Your task to perform on an android device: Show me recent news Image 0: 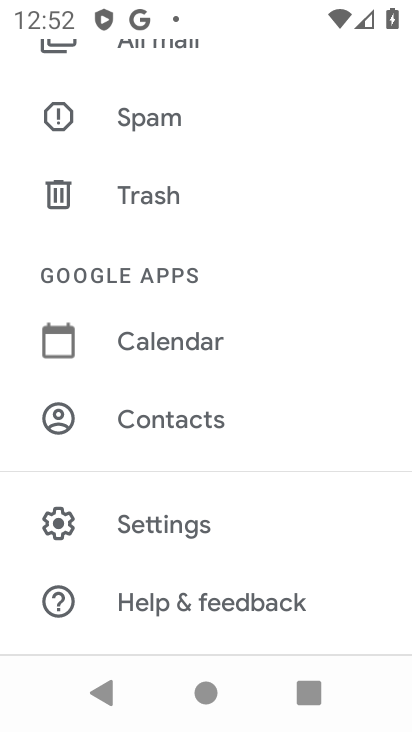
Step 0: press home button
Your task to perform on an android device: Show me recent news Image 1: 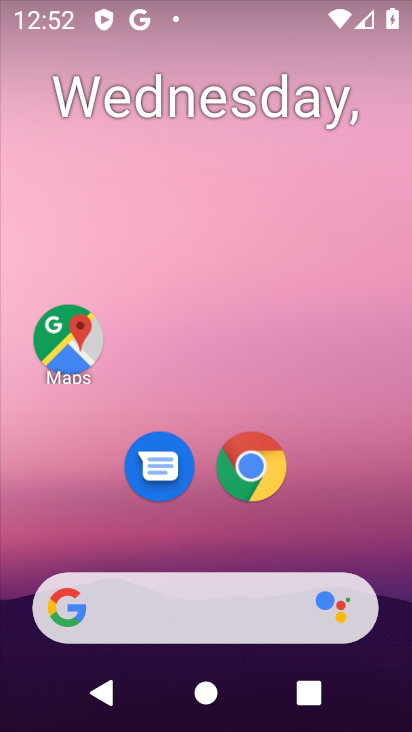
Step 1: click (179, 586)
Your task to perform on an android device: Show me recent news Image 2: 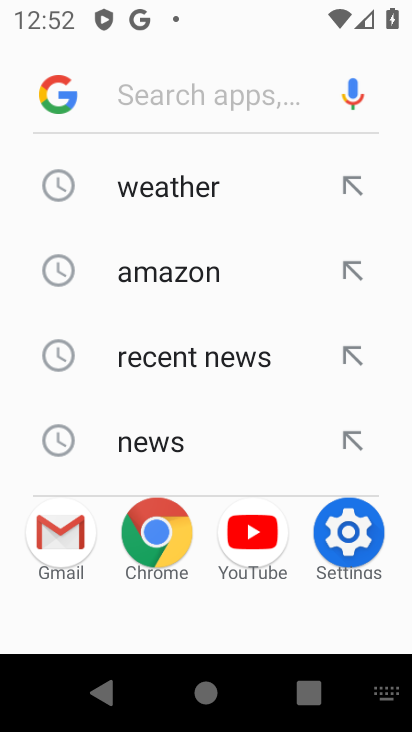
Step 2: click (277, 353)
Your task to perform on an android device: Show me recent news Image 3: 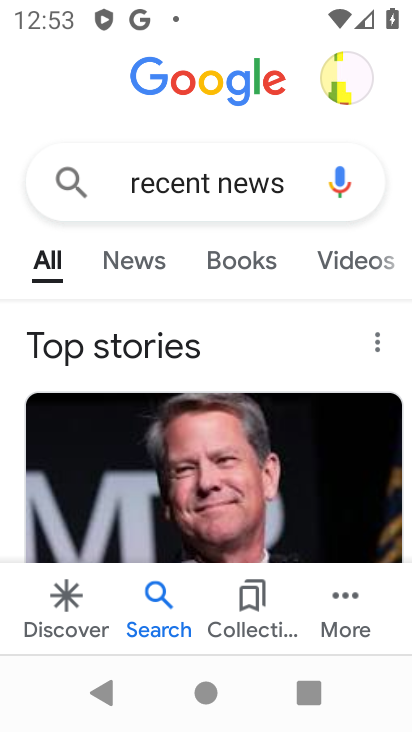
Step 3: task complete